Your task to perform on an android device: Turn on the flashlight Image 0: 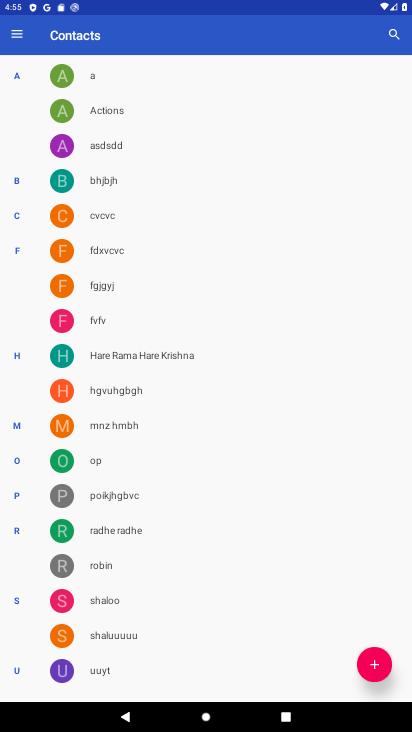
Step 0: press home button
Your task to perform on an android device: Turn on the flashlight Image 1: 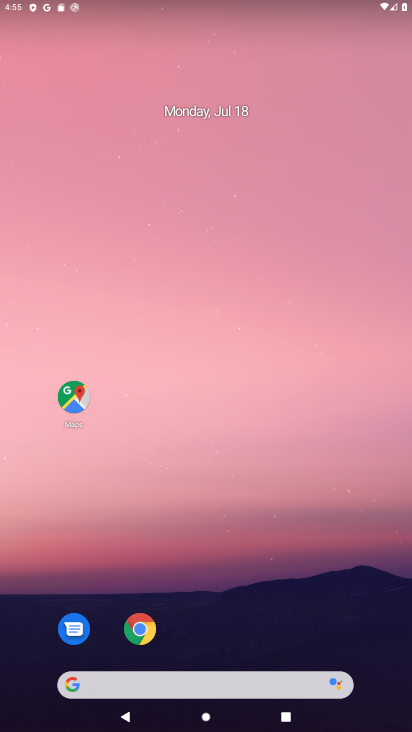
Step 1: drag from (224, 646) to (166, 46)
Your task to perform on an android device: Turn on the flashlight Image 2: 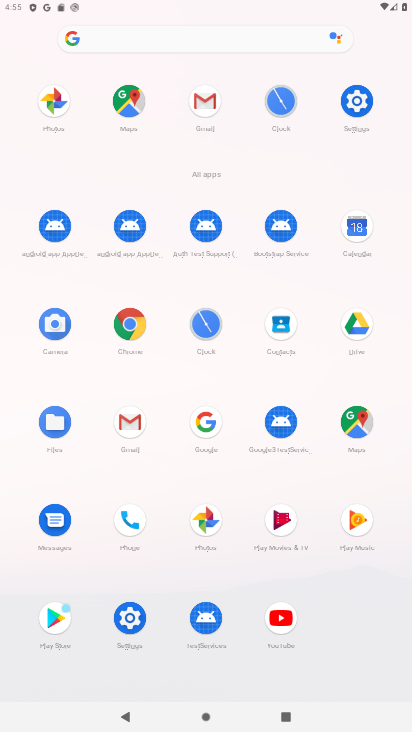
Step 2: click (355, 103)
Your task to perform on an android device: Turn on the flashlight Image 3: 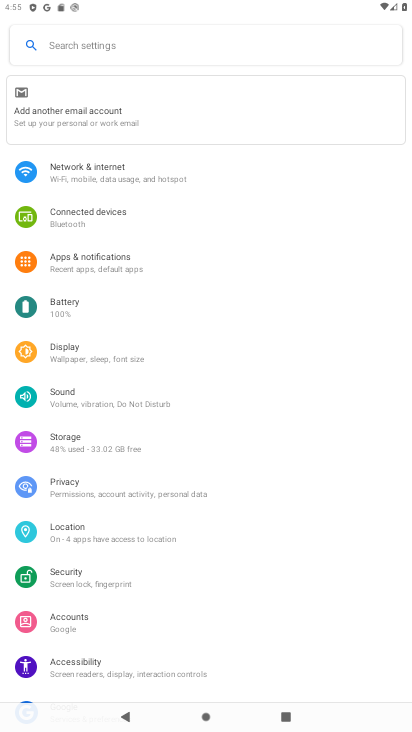
Step 3: click (120, 362)
Your task to perform on an android device: Turn on the flashlight Image 4: 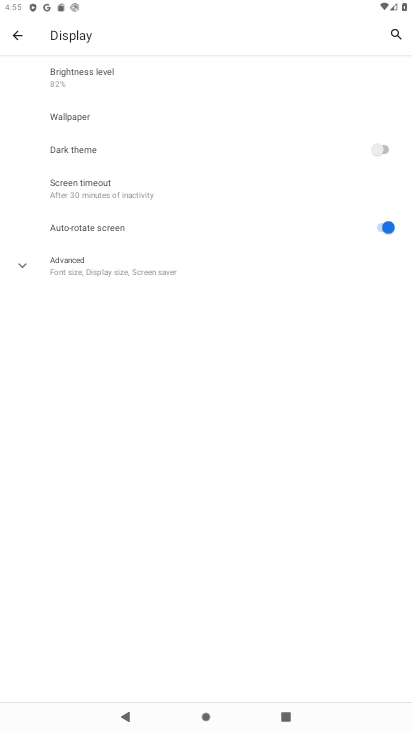
Step 4: click (88, 200)
Your task to perform on an android device: Turn on the flashlight Image 5: 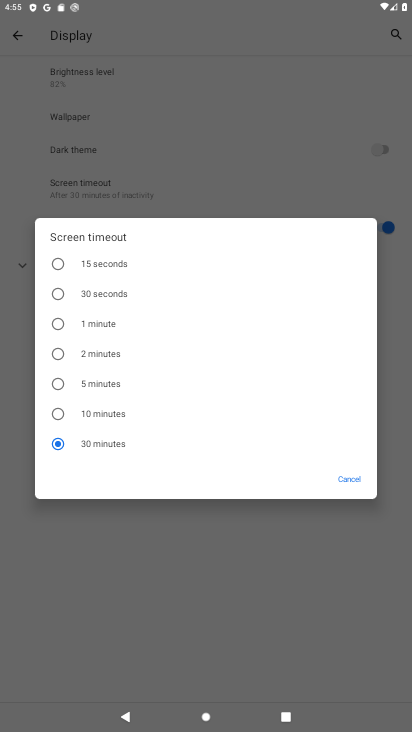
Step 5: task complete